Your task to perform on an android device: Go to accessibility settings Image 0: 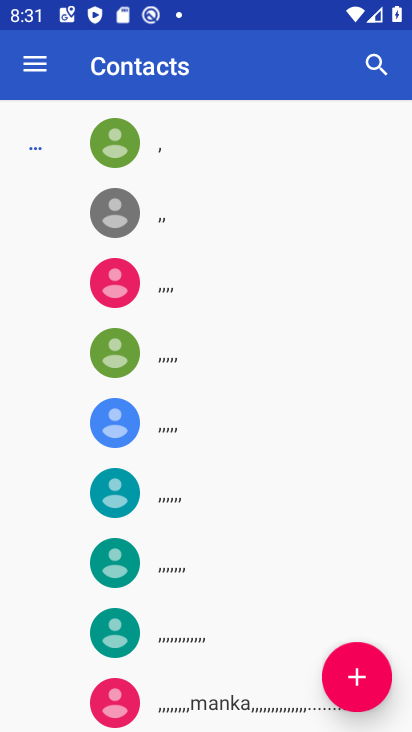
Step 0: press home button
Your task to perform on an android device: Go to accessibility settings Image 1: 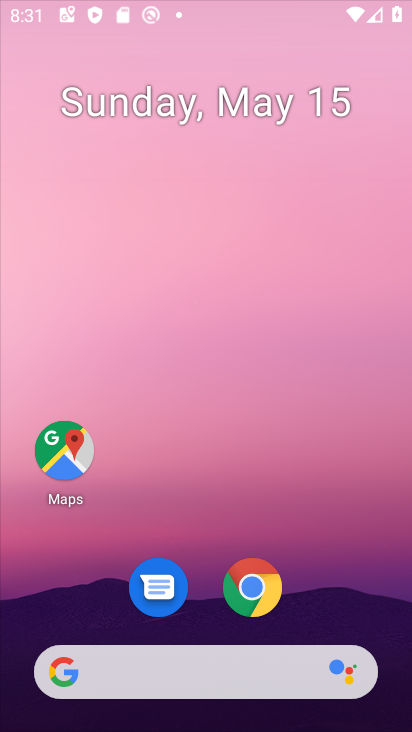
Step 1: drag from (389, 651) to (248, 18)
Your task to perform on an android device: Go to accessibility settings Image 2: 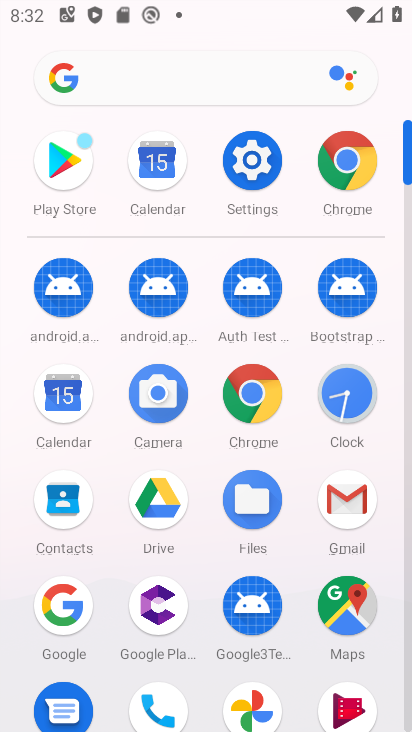
Step 2: click (270, 161)
Your task to perform on an android device: Go to accessibility settings Image 3: 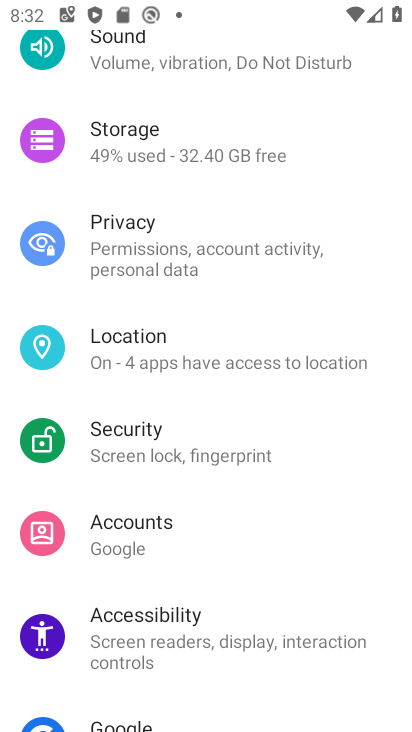
Step 3: click (164, 655)
Your task to perform on an android device: Go to accessibility settings Image 4: 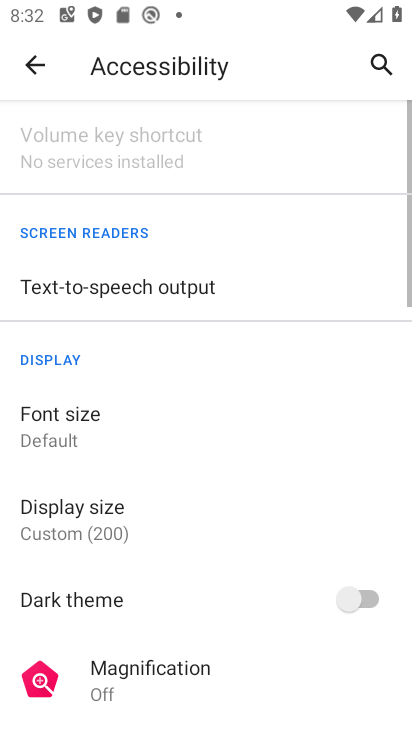
Step 4: task complete